Your task to perform on an android device: see creations saved in the google photos Image 0: 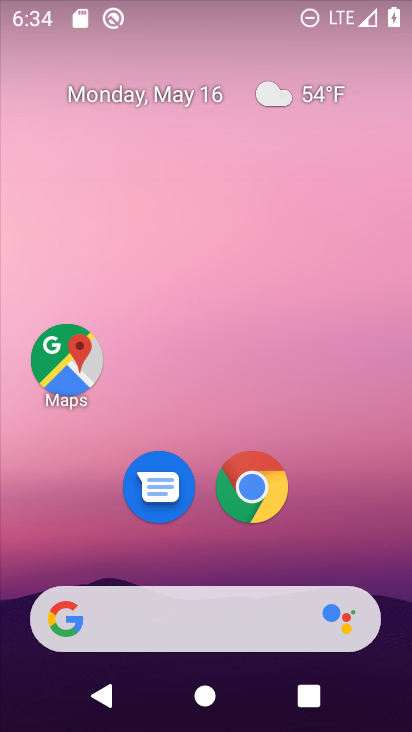
Step 0: drag from (212, 587) to (223, 280)
Your task to perform on an android device: see creations saved in the google photos Image 1: 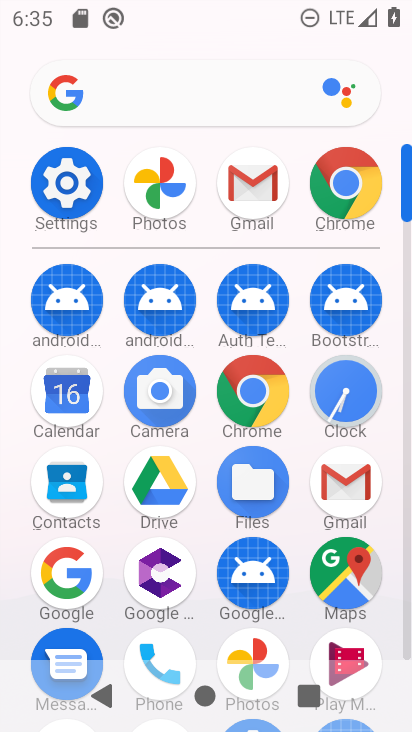
Step 1: drag from (280, 632) to (284, 368)
Your task to perform on an android device: see creations saved in the google photos Image 2: 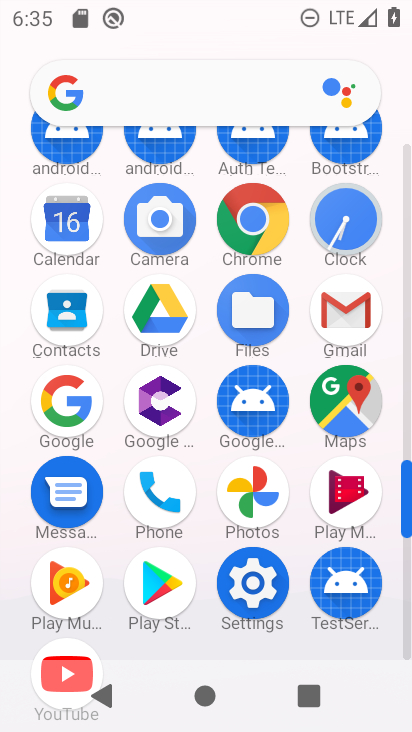
Step 2: click (257, 489)
Your task to perform on an android device: see creations saved in the google photos Image 3: 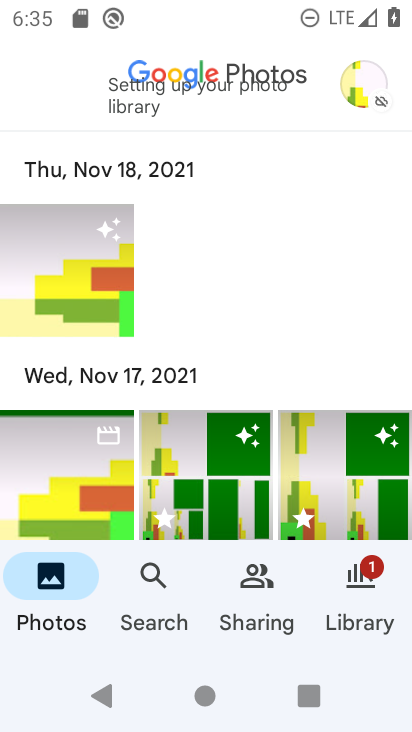
Step 3: drag from (214, 586) to (219, 367)
Your task to perform on an android device: see creations saved in the google photos Image 4: 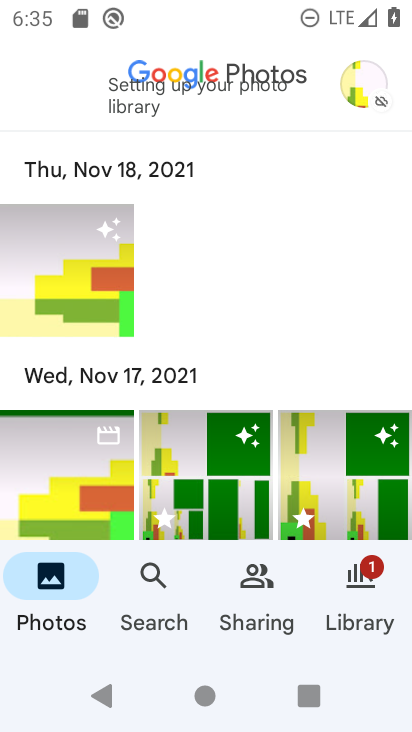
Step 4: click (358, 582)
Your task to perform on an android device: see creations saved in the google photos Image 5: 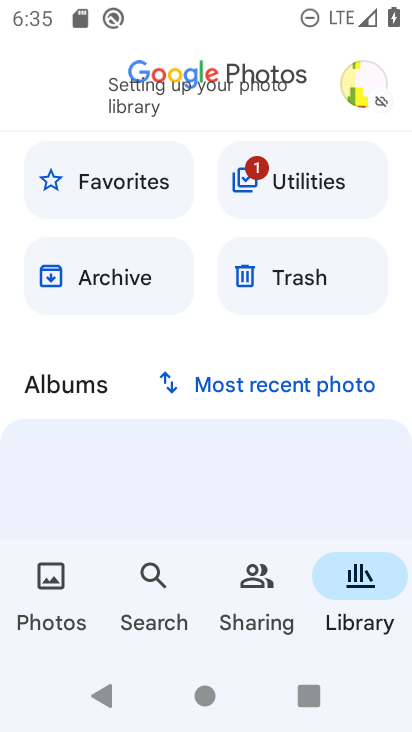
Step 5: task complete